Your task to perform on an android device: turn on data saver in the chrome app Image 0: 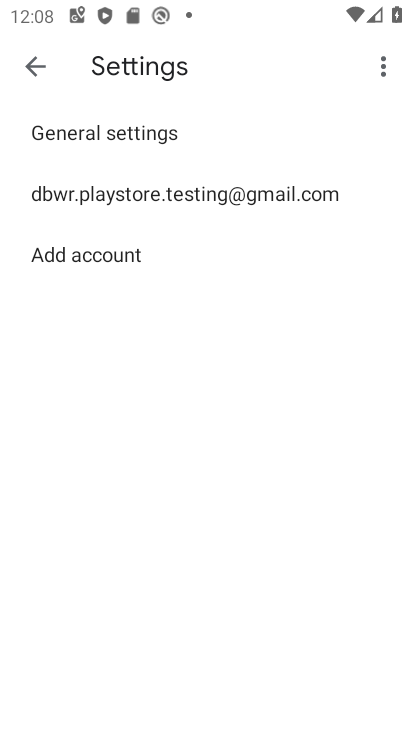
Step 0: press home button
Your task to perform on an android device: turn on data saver in the chrome app Image 1: 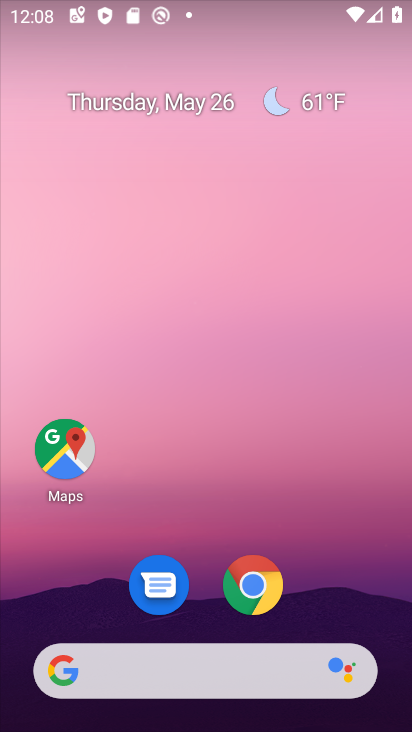
Step 1: click (266, 571)
Your task to perform on an android device: turn on data saver in the chrome app Image 2: 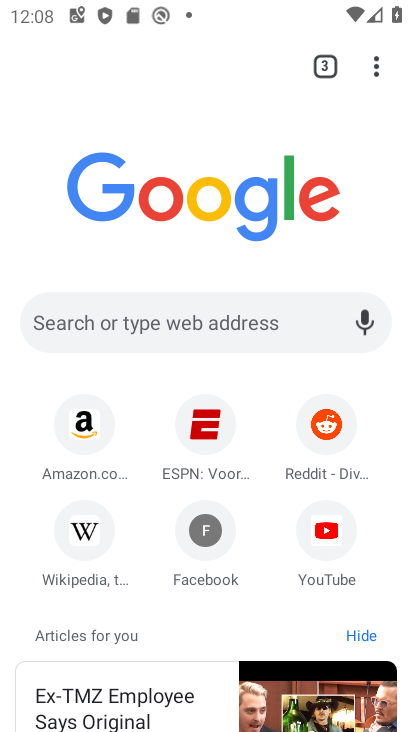
Step 2: click (374, 59)
Your task to perform on an android device: turn on data saver in the chrome app Image 3: 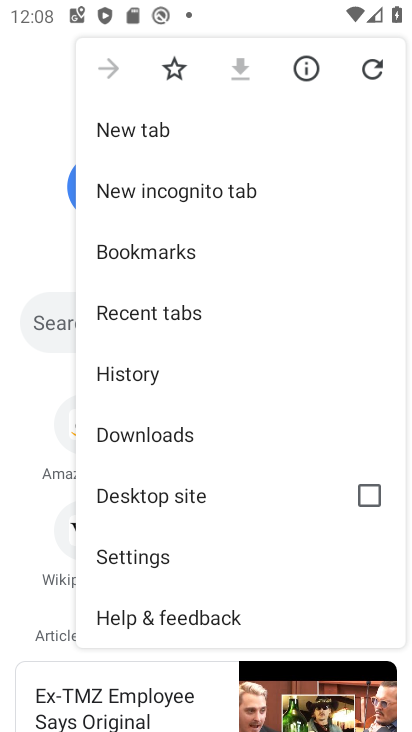
Step 3: click (175, 548)
Your task to perform on an android device: turn on data saver in the chrome app Image 4: 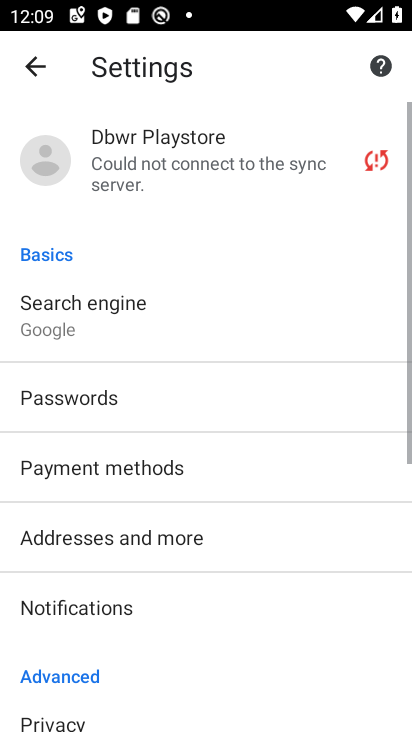
Step 4: drag from (268, 441) to (302, 116)
Your task to perform on an android device: turn on data saver in the chrome app Image 5: 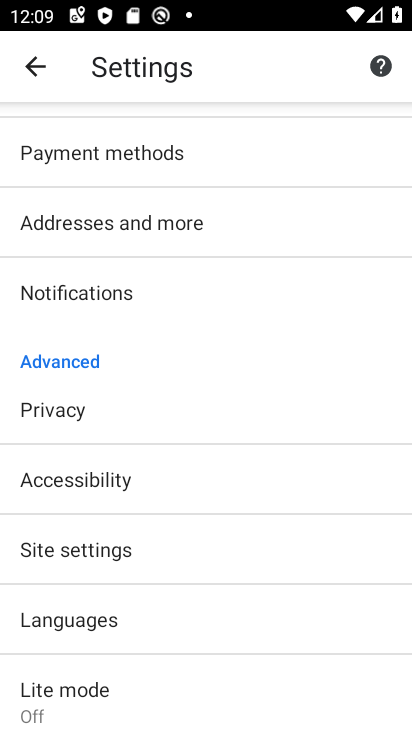
Step 5: click (181, 701)
Your task to perform on an android device: turn on data saver in the chrome app Image 6: 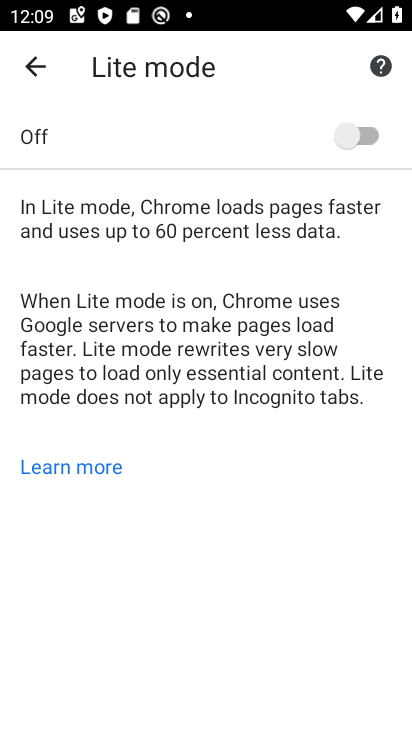
Step 6: click (363, 117)
Your task to perform on an android device: turn on data saver in the chrome app Image 7: 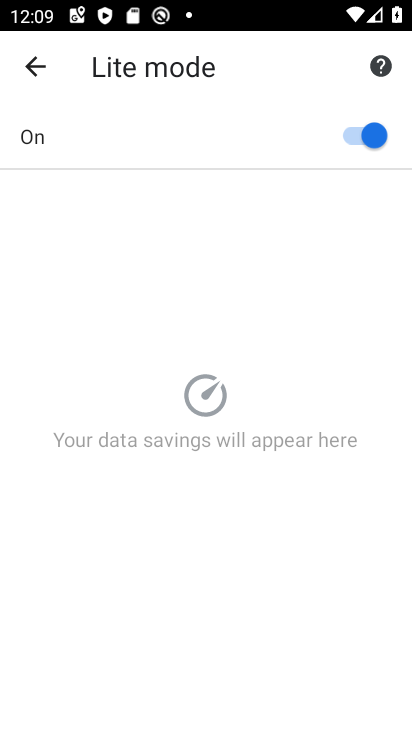
Step 7: task complete